Your task to perform on an android device: Search for Mexican restaurants on Maps Image 0: 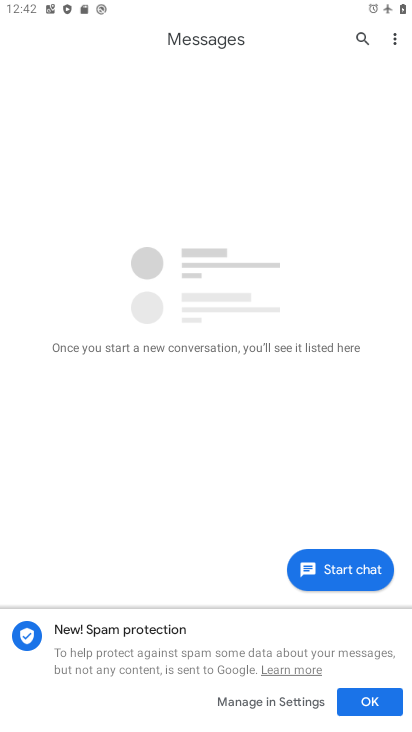
Step 0: press home button
Your task to perform on an android device: Search for Mexican restaurants on Maps Image 1: 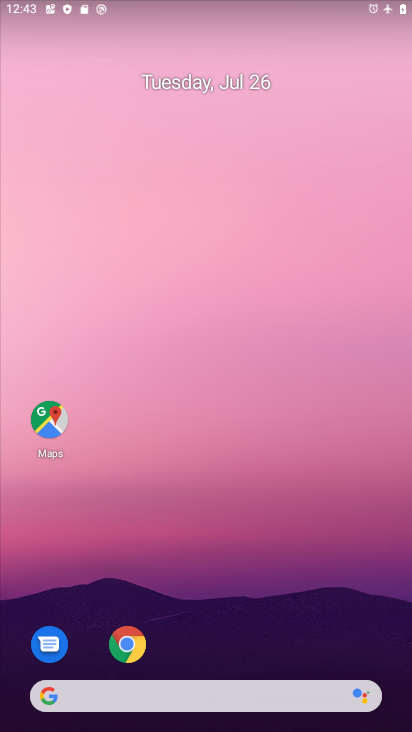
Step 1: drag from (172, 624) to (262, 53)
Your task to perform on an android device: Search for Mexican restaurants on Maps Image 2: 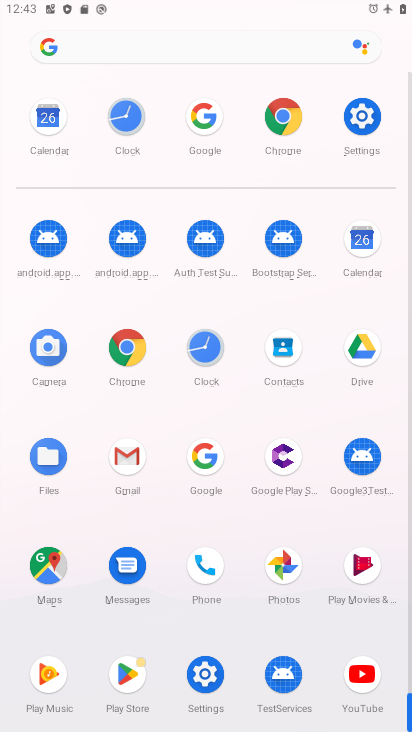
Step 2: click (60, 570)
Your task to perform on an android device: Search for Mexican restaurants on Maps Image 3: 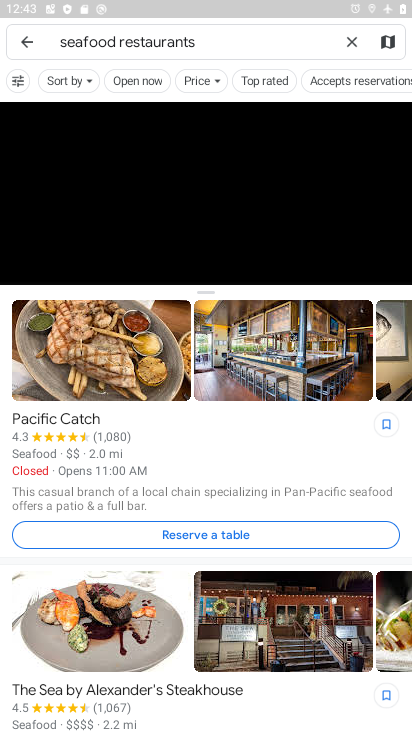
Step 3: click (352, 37)
Your task to perform on an android device: Search for Mexican restaurants on Maps Image 4: 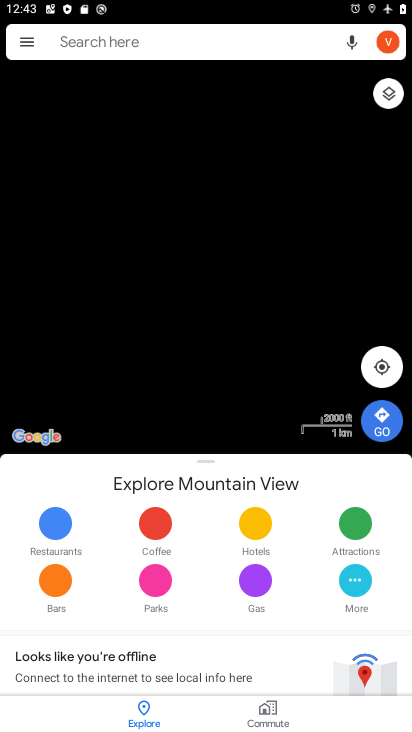
Step 4: click (257, 42)
Your task to perform on an android device: Search for Mexican restaurants on Maps Image 5: 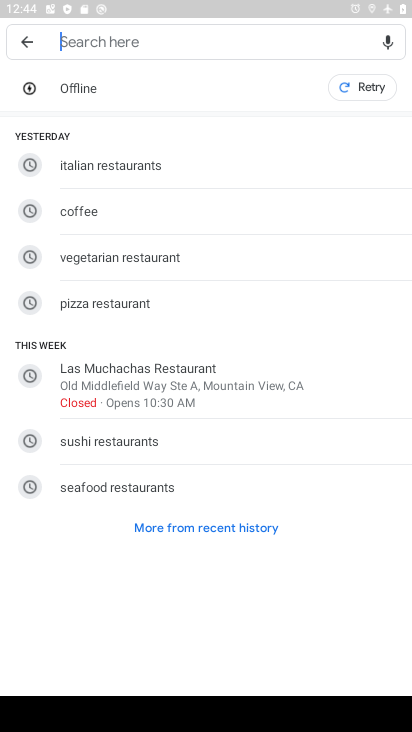
Step 5: type "maxican"
Your task to perform on an android device: Search for Mexican restaurants on Maps Image 6: 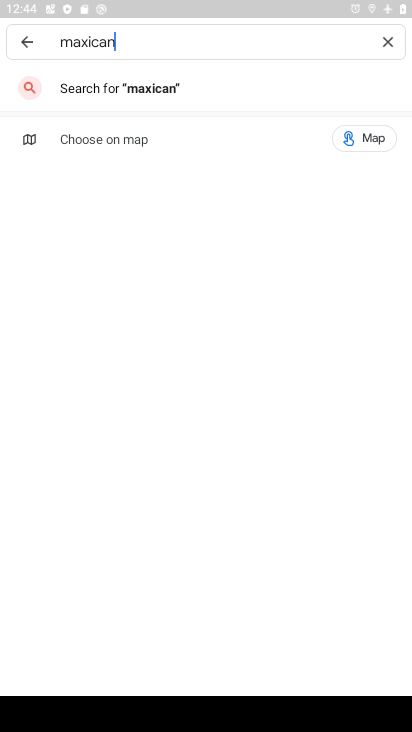
Step 6: task complete